Your task to perform on an android device: Open settings Image 0: 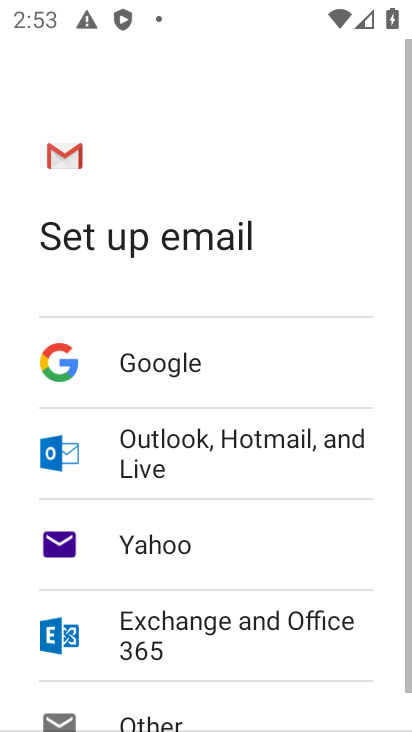
Step 0: press home button
Your task to perform on an android device: Open settings Image 1: 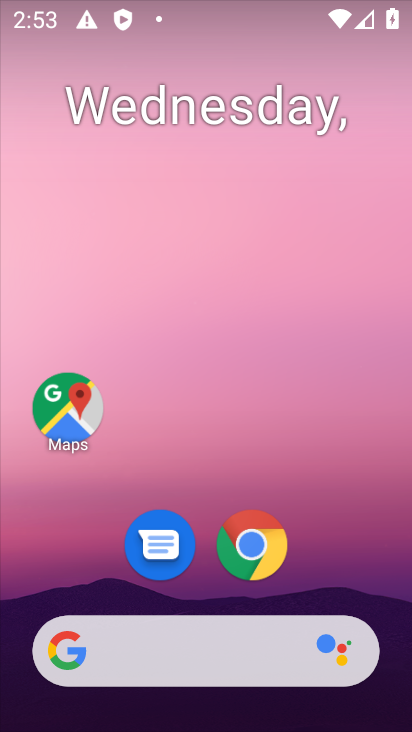
Step 1: drag from (219, 643) to (255, 61)
Your task to perform on an android device: Open settings Image 2: 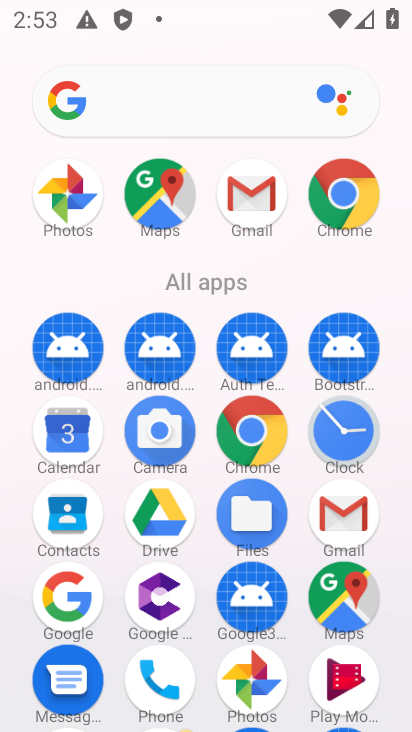
Step 2: drag from (200, 594) to (220, 90)
Your task to perform on an android device: Open settings Image 3: 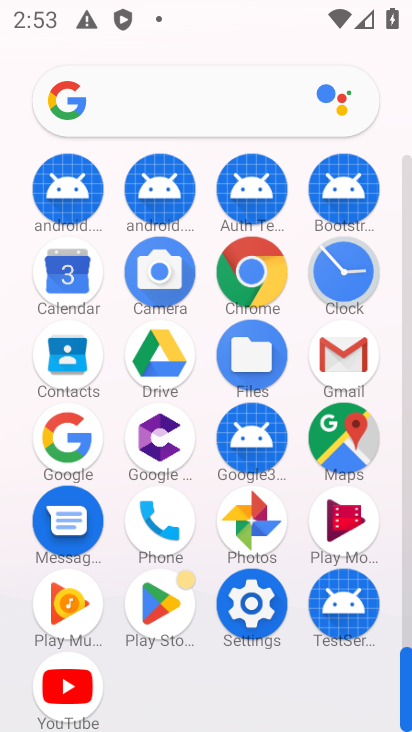
Step 3: click (266, 615)
Your task to perform on an android device: Open settings Image 4: 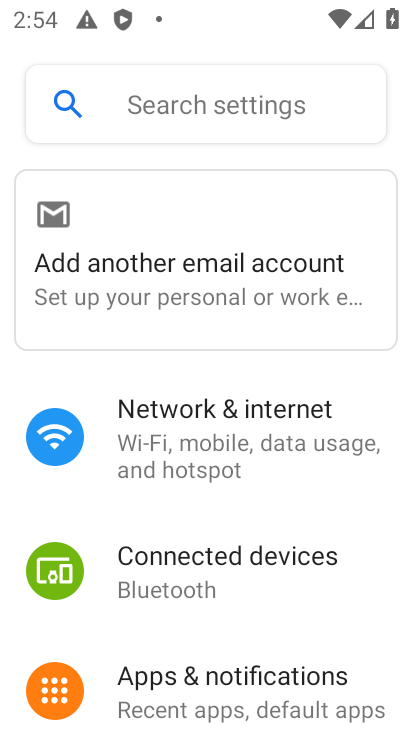
Step 4: task complete